Your task to perform on an android device: When is my next appointment? Image 0: 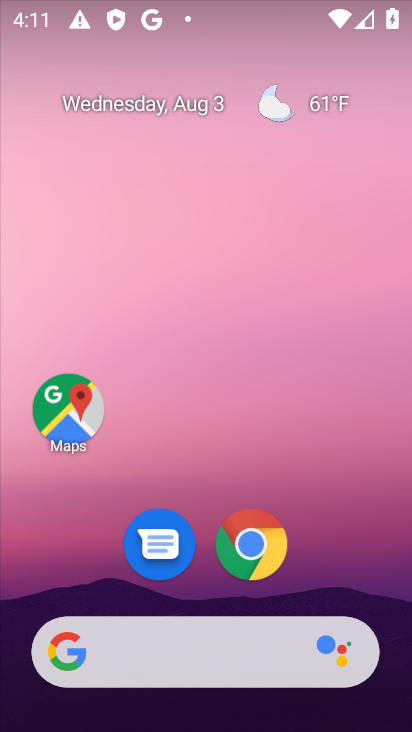
Step 0: drag from (296, 585) to (272, 57)
Your task to perform on an android device: When is my next appointment? Image 1: 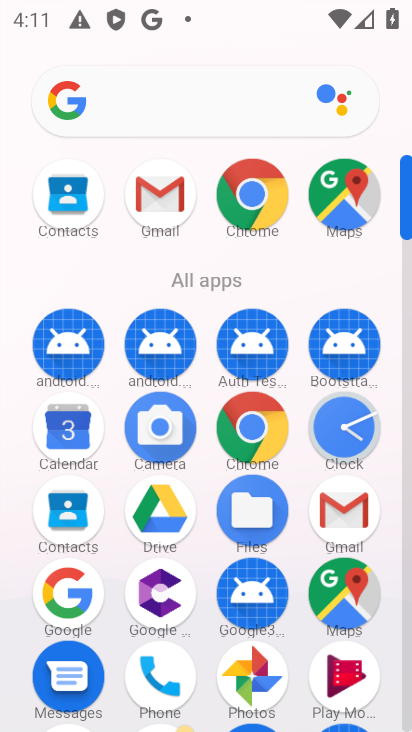
Step 1: drag from (207, 399) to (213, 71)
Your task to perform on an android device: When is my next appointment? Image 2: 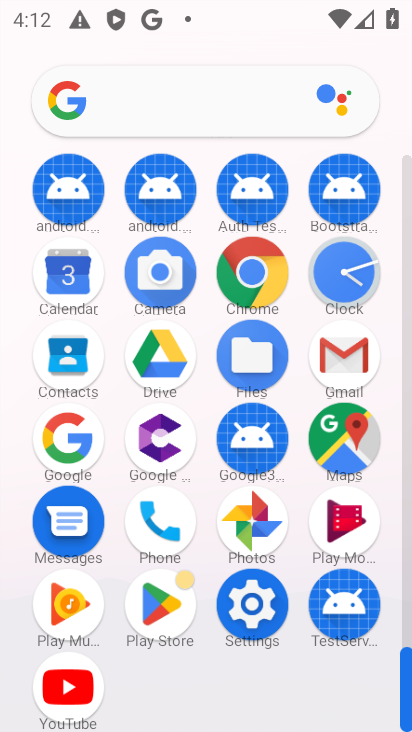
Step 2: click (77, 271)
Your task to perform on an android device: When is my next appointment? Image 3: 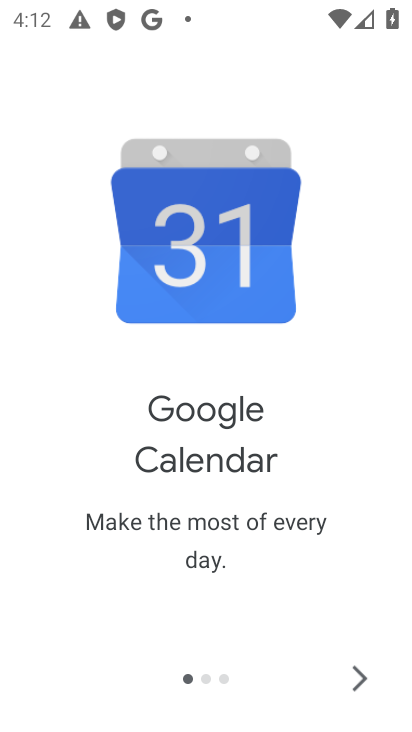
Step 3: click (365, 672)
Your task to perform on an android device: When is my next appointment? Image 4: 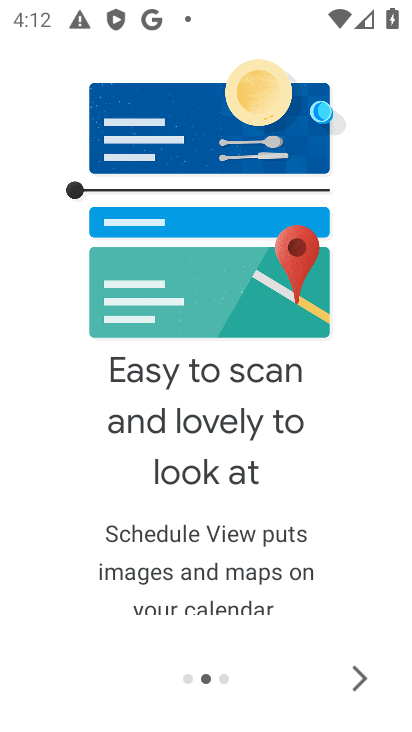
Step 4: click (365, 672)
Your task to perform on an android device: When is my next appointment? Image 5: 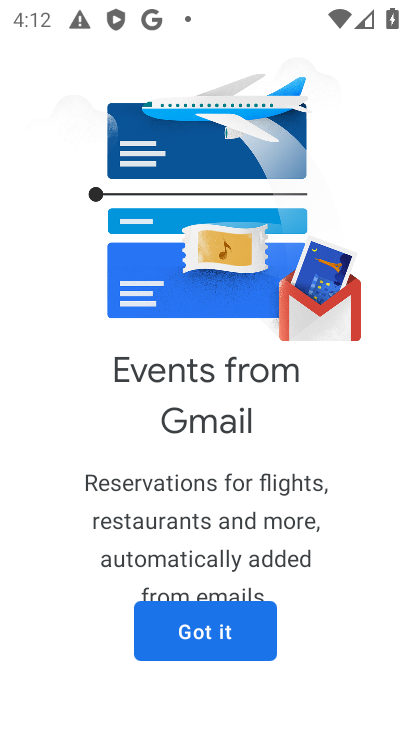
Step 5: click (222, 625)
Your task to perform on an android device: When is my next appointment? Image 6: 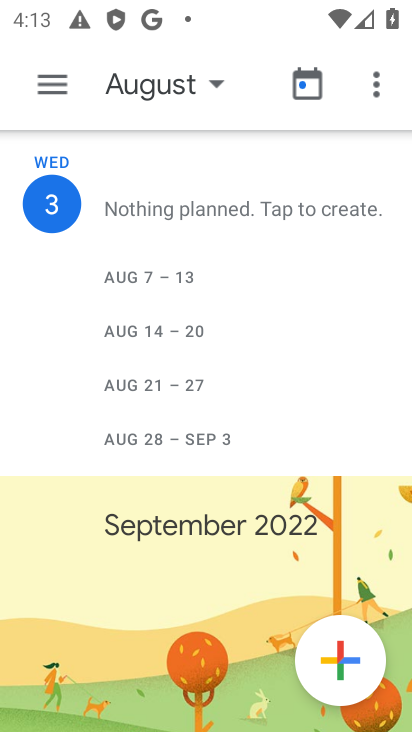
Step 6: click (215, 87)
Your task to perform on an android device: When is my next appointment? Image 7: 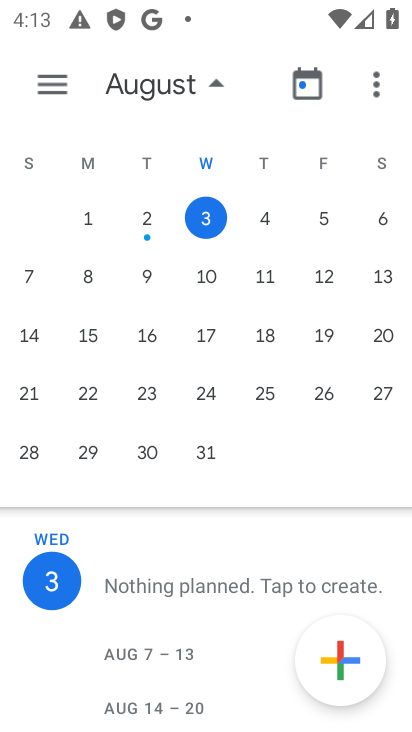
Step 7: click (216, 217)
Your task to perform on an android device: When is my next appointment? Image 8: 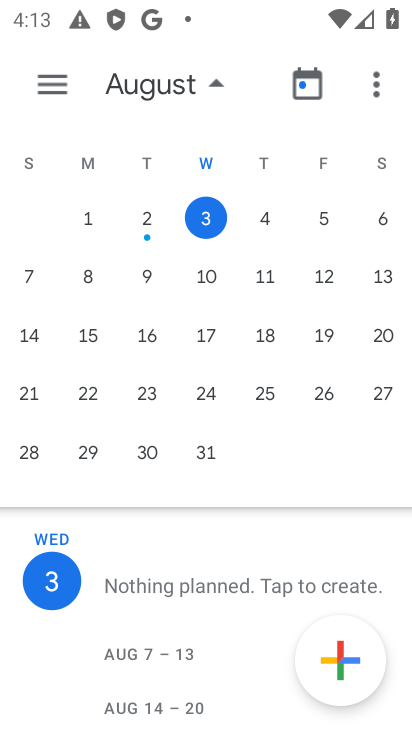
Step 8: task complete